Your task to perform on an android device: What's the weather? Image 0: 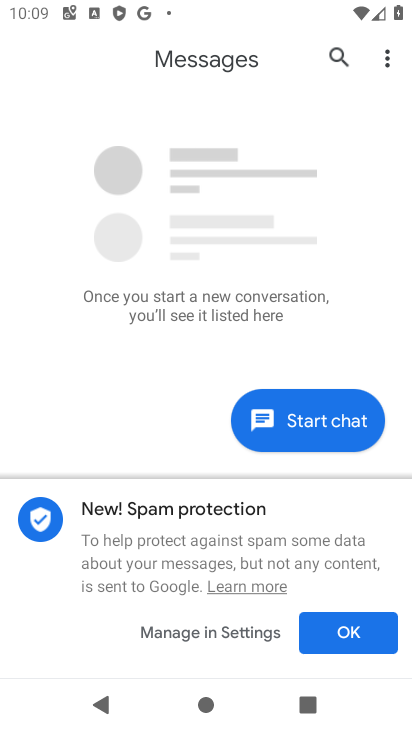
Step 0: press home button
Your task to perform on an android device: What's the weather? Image 1: 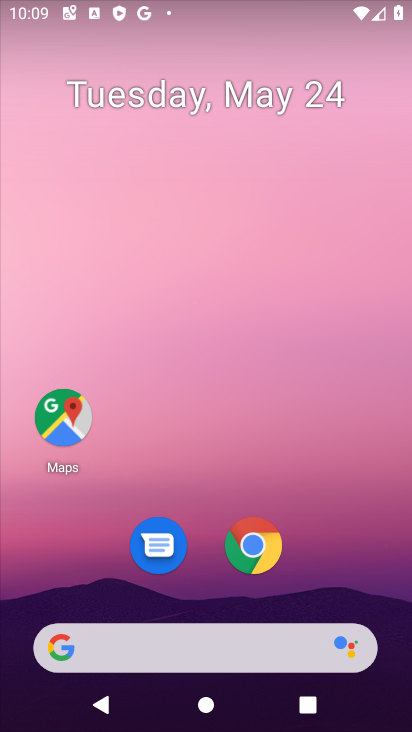
Step 1: click (252, 653)
Your task to perform on an android device: What's the weather? Image 2: 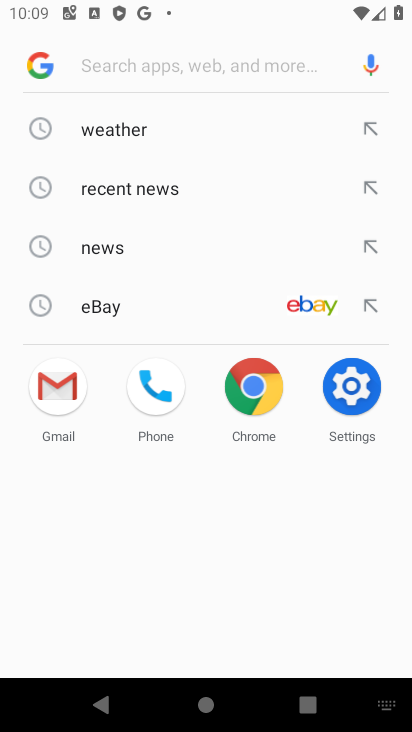
Step 2: click (114, 121)
Your task to perform on an android device: What's the weather? Image 3: 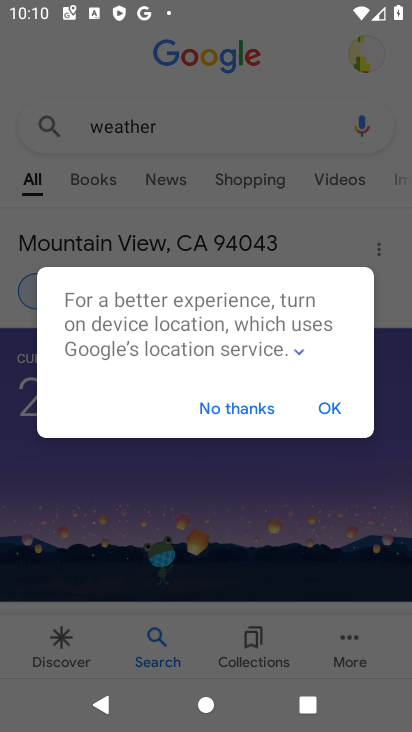
Step 3: click (246, 414)
Your task to perform on an android device: What's the weather? Image 4: 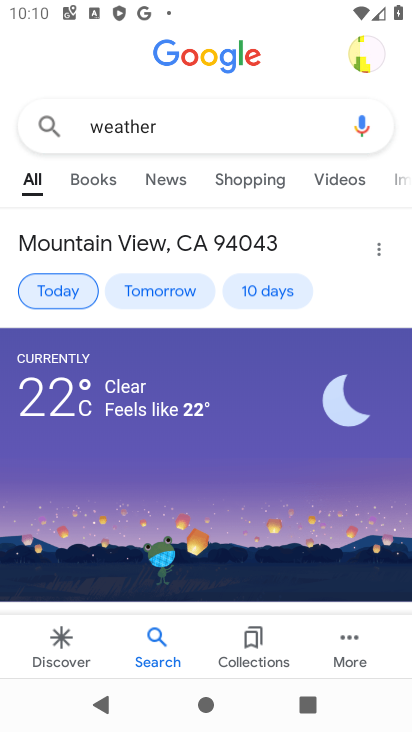
Step 4: click (74, 294)
Your task to perform on an android device: What's the weather? Image 5: 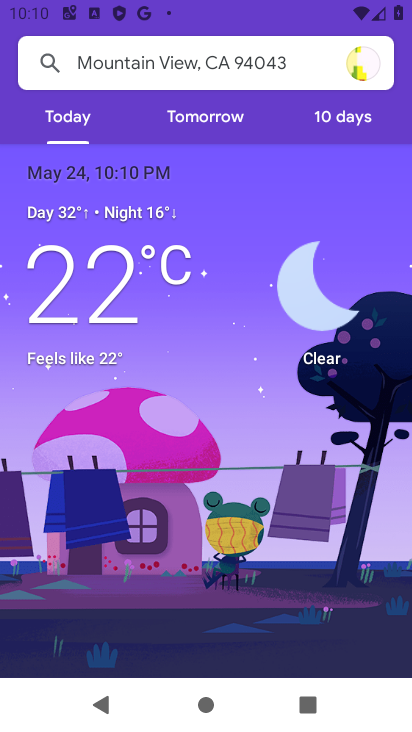
Step 5: task complete